Your task to perform on an android device: change the clock display to digital Image 0: 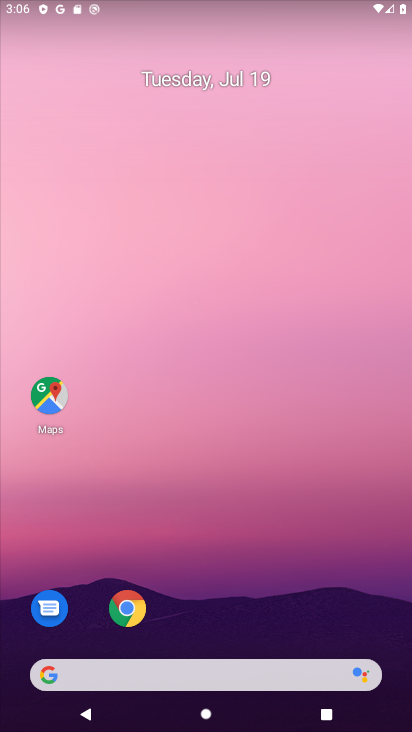
Step 0: drag from (321, 630) to (294, 207)
Your task to perform on an android device: change the clock display to digital Image 1: 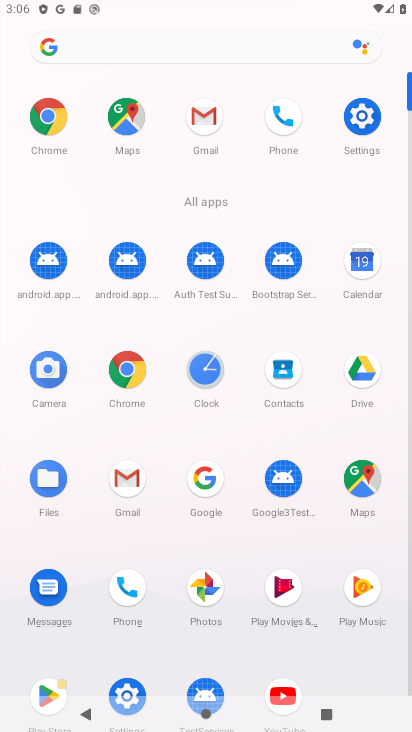
Step 1: click (203, 361)
Your task to perform on an android device: change the clock display to digital Image 2: 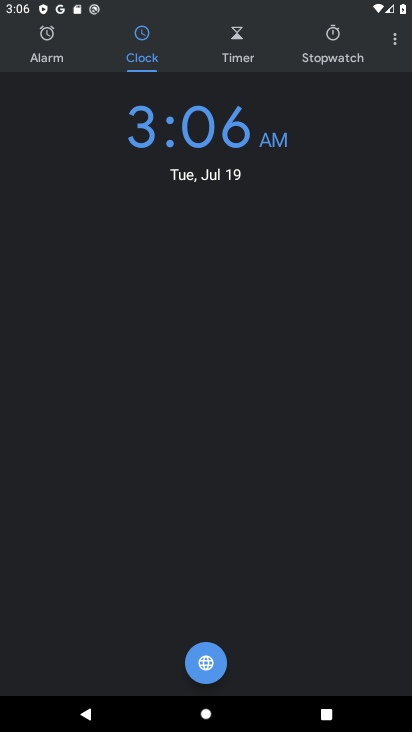
Step 2: click (393, 37)
Your task to perform on an android device: change the clock display to digital Image 3: 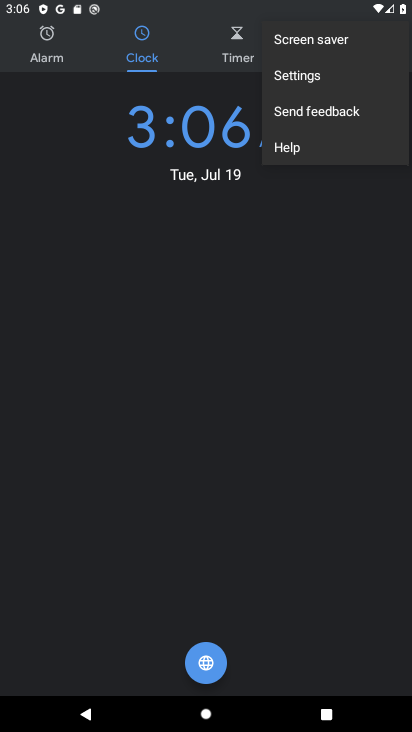
Step 3: click (307, 79)
Your task to perform on an android device: change the clock display to digital Image 4: 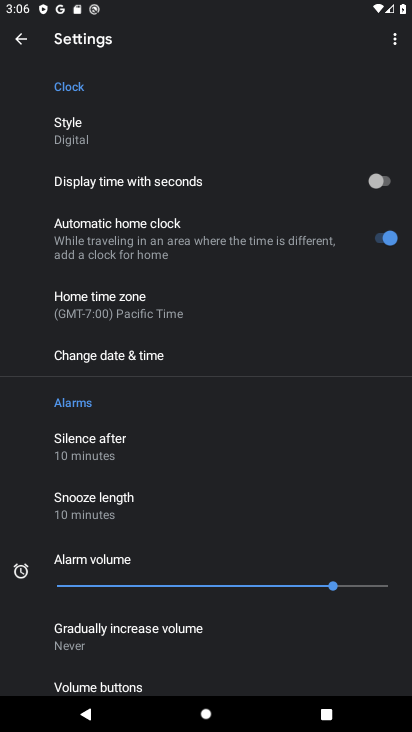
Step 4: click (150, 113)
Your task to perform on an android device: change the clock display to digital Image 5: 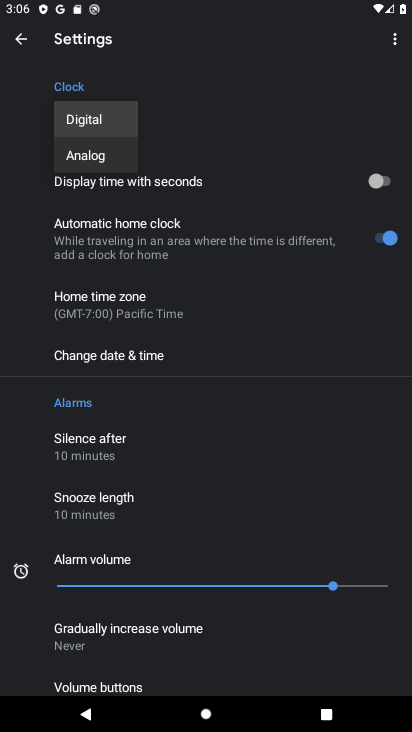
Step 5: task complete